Your task to perform on an android device: toggle pop-ups in chrome Image 0: 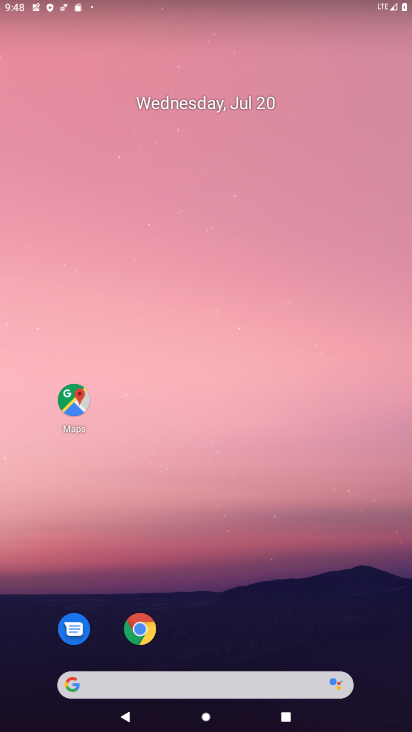
Step 0: press home button
Your task to perform on an android device: toggle pop-ups in chrome Image 1: 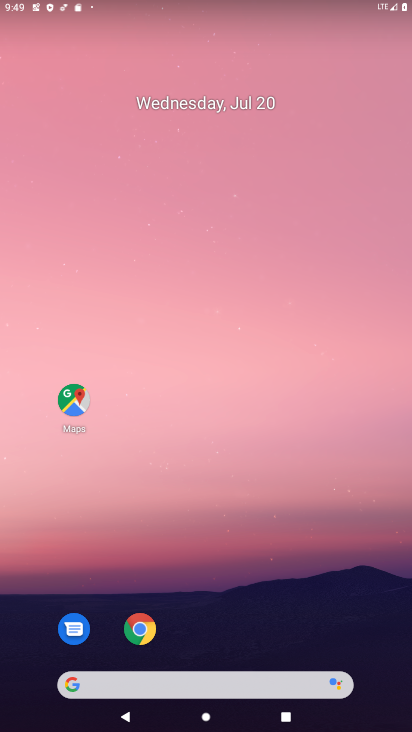
Step 1: drag from (307, 664) to (289, 202)
Your task to perform on an android device: toggle pop-ups in chrome Image 2: 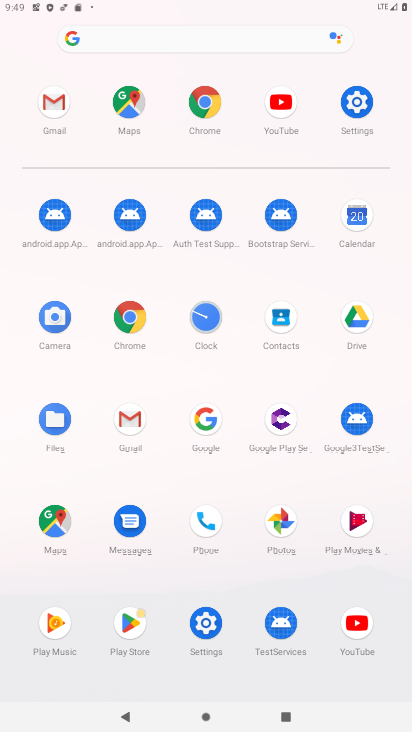
Step 2: click (133, 338)
Your task to perform on an android device: toggle pop-ups in chrome Image 3: 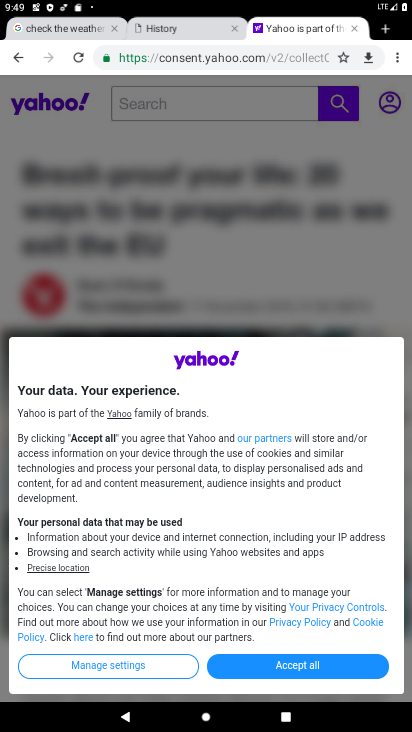
Step 3: drag from (402, 52) to (278, 403)
Your task to perform on an android device: toggle pop-ups in chrome Image 4: 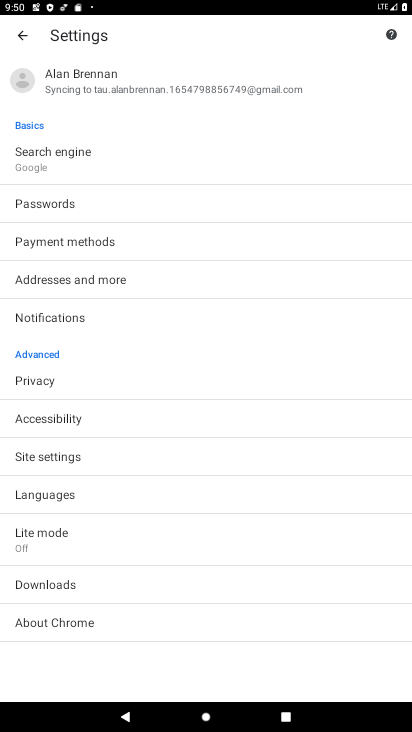
Step 4: click (73, 461)
Your task to perform on an android device: toggle pop-ups in chrome Image 5: 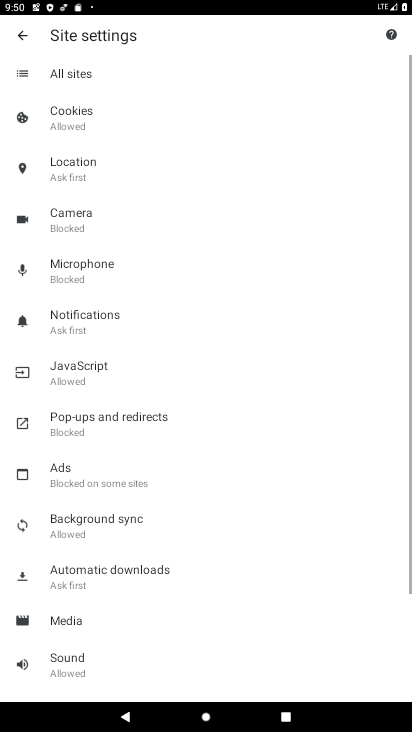
Step 5: click (74, 427)
Your task to perform on an android device: toggle pop-ups in chrome Image 6: 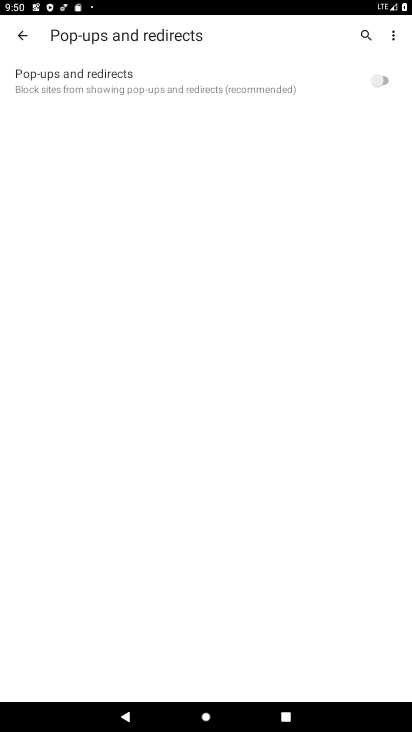
Step 6: click (275, 73)
Your task to perform on an android device: toggle pop-ups in chrome Image 7: 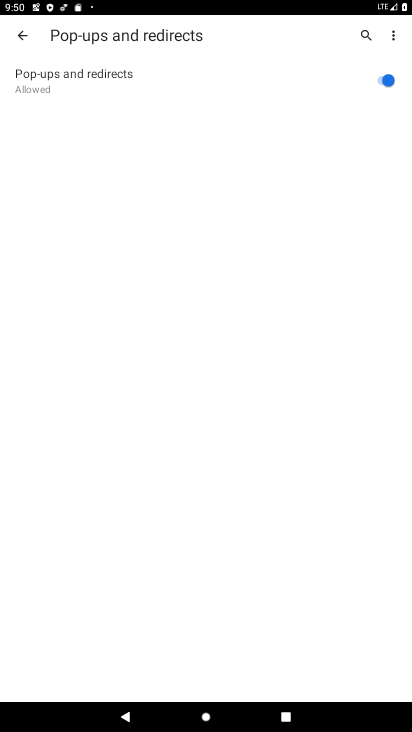
Step 7: task complete